Your task to perform on an android device: Open network settings Image 0: 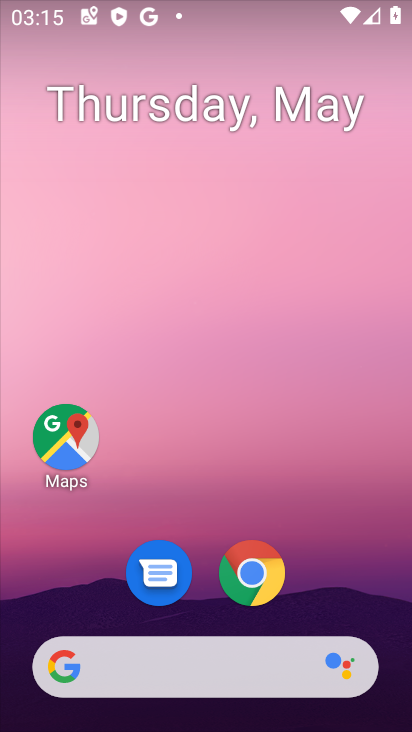
Step 0: drag from (314, 595) to (298, 186)
Your task to perform on an android device: Open network settings Image 1: 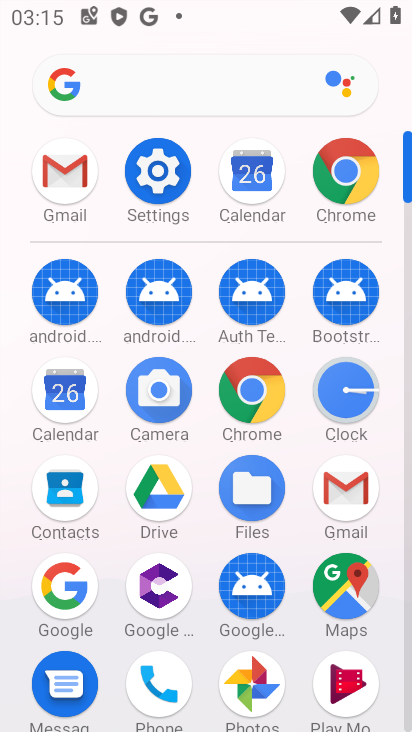
Step 1: click (153, 170)
Your task to perform on an android device: Open network settings Image 2: 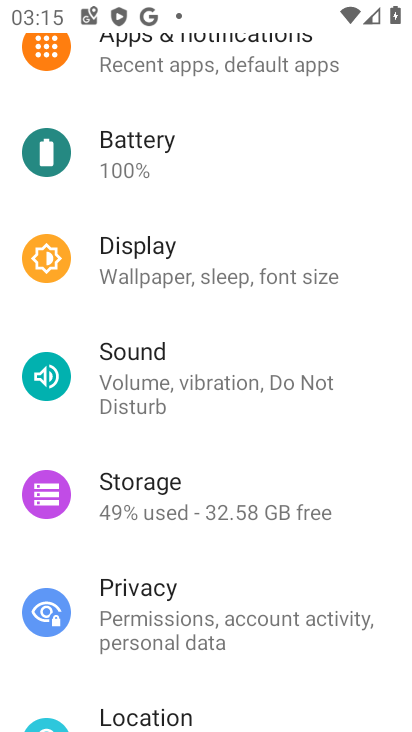
Step 2: drag from (210, 66) to (249, 385)
Your task to perform on an android device: Open network settings Image 3: 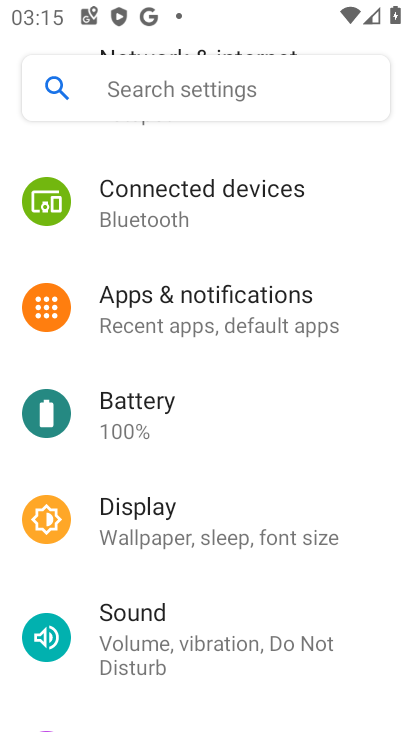
Step 3: drag from (206, 169) to (218, 436)
Your task to perform on an android device: Open network settings Image 4: 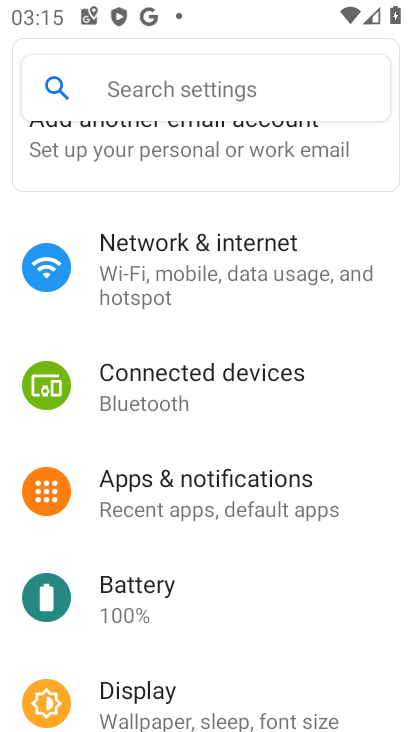
Step 4: click (238, 238)
Your task to perform on an android device: Open network settings Image 5: 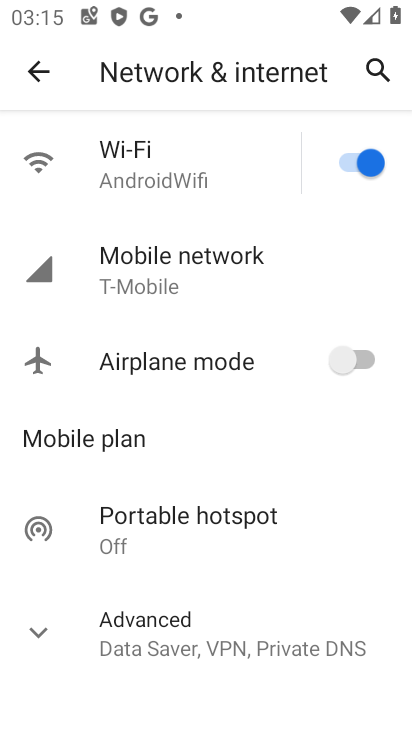
Step 5: click (110, 261)
Your task to perform on an android device: Open network settings Image 6: 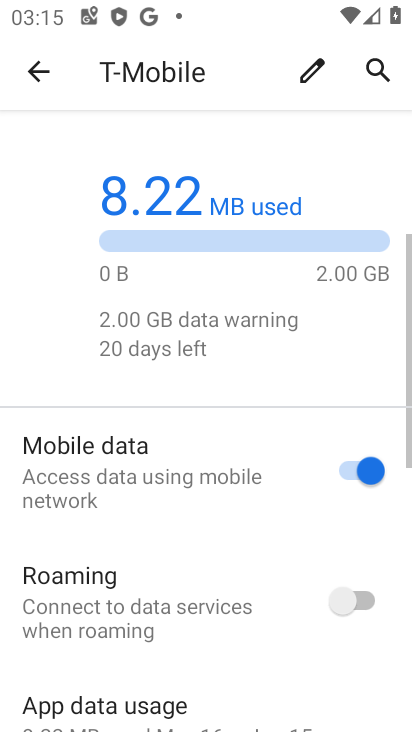
Step 6: click (22, 65)
Your task to perform on an android device: Open network settings Image 7: 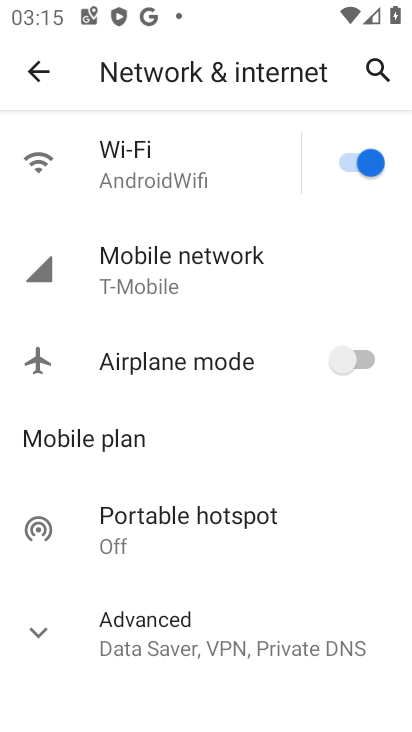
Step 7: task complete